Your task to perform on an android device: delete browsing data in the chrome app Image 0: 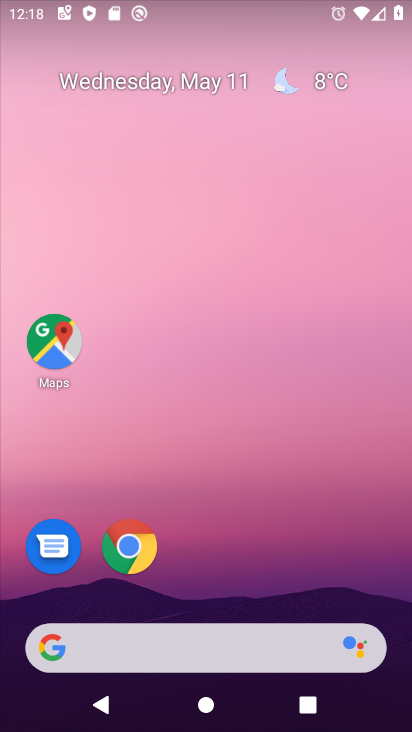
Step 0: click (141, 555)
Your task to perform on an android device: delete browsing data in the chrome app Image 1: 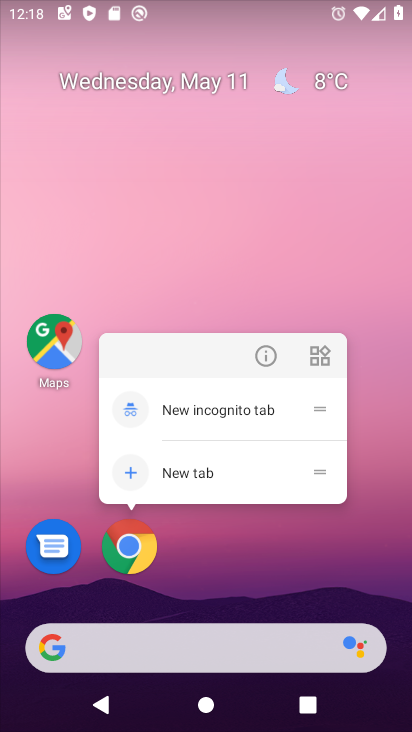
Step 1: click (127, 557)
Your task to perform on an android device: delete browsing data in the chrome app Image 2: 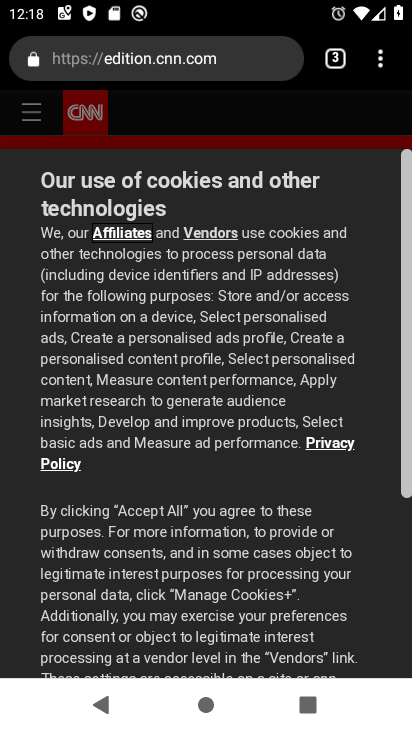
Step 2: drag from (377, 65) to (238, 577)
Your task to perform on an android device: delete browsing data in the chrome app Image 3: 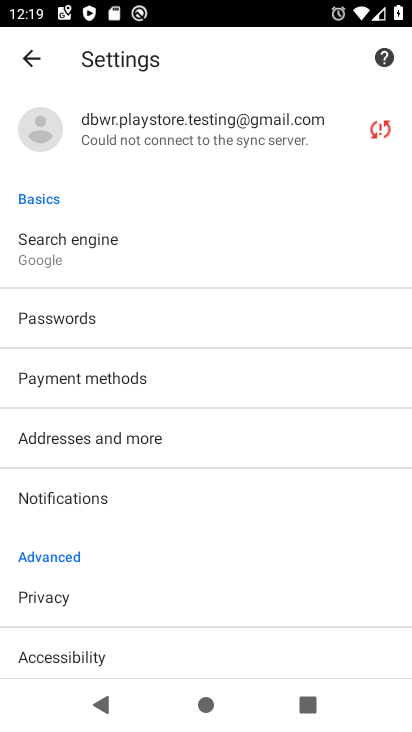
Step 3: click (43, 588)
Your task to perform on an android device: delete browsing data in the chrome app Image 4: 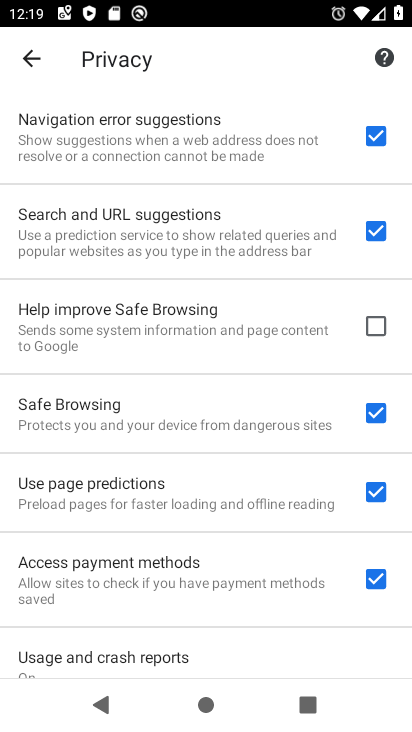
Step 4: drag from (236, 634) to (383, 192)
Your task to perform on an android device: delete browsing data in the chrome app Image 5: 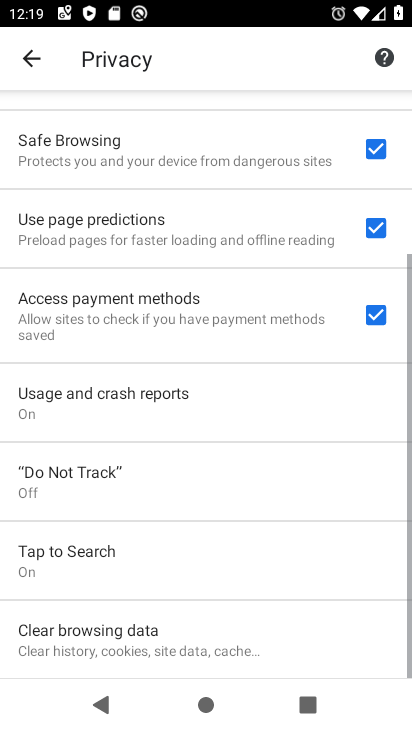
Step 5: click (167, 637)
Your task to perform on an android device: delete browsing data in the chrome app Image 6: 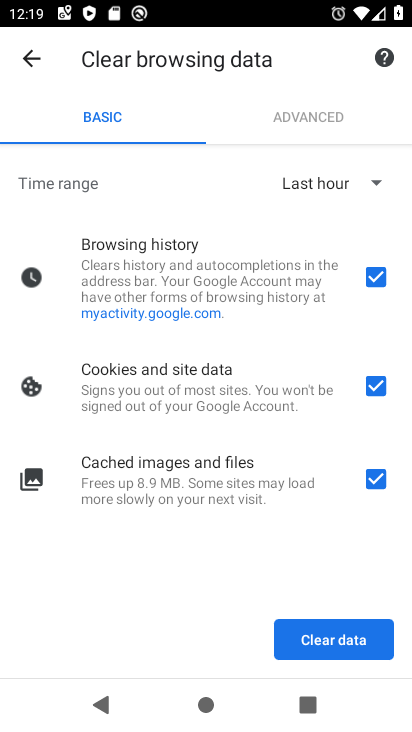
Step 6: click (311, 647)
Your task to perform on an android device: delete browsing data in the chrome app Image 7: 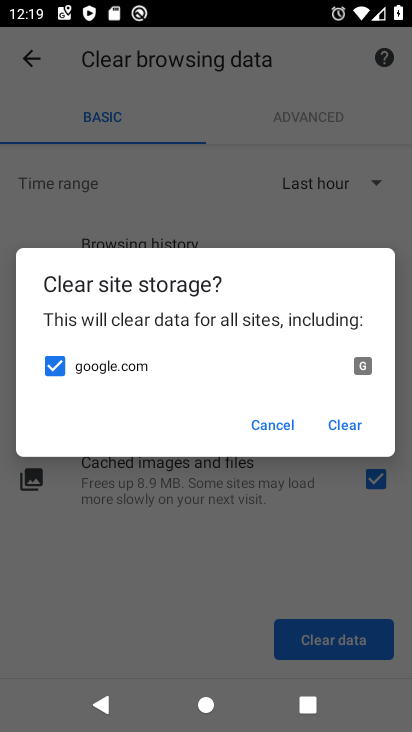
Step 7: click (356, 429)
Your task to perform on an android device: delete browsing data in the chrome app Image 8: 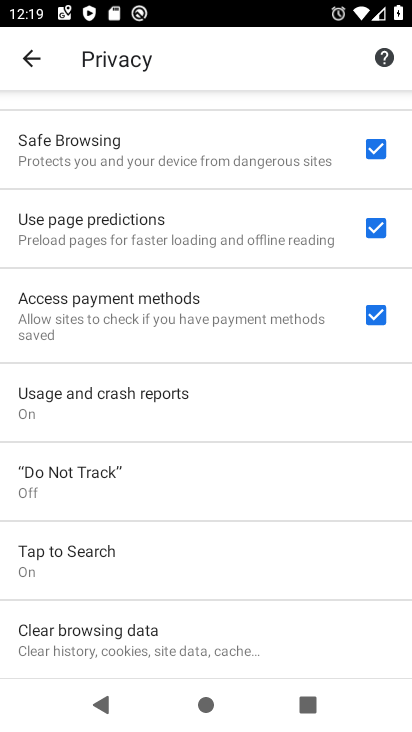
Step 8: task complete